Your task to perform on an android device: turn on translation in the chrome app Image 0: 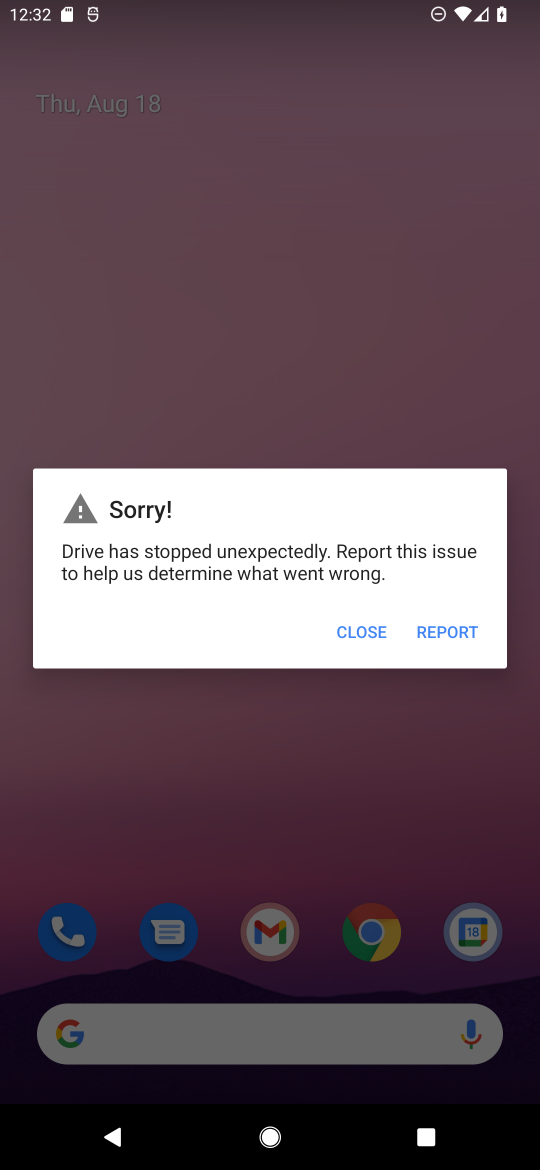
Step 0: press home button
Your task to perform on an android device: turn on translation in the chrome app Image 1: 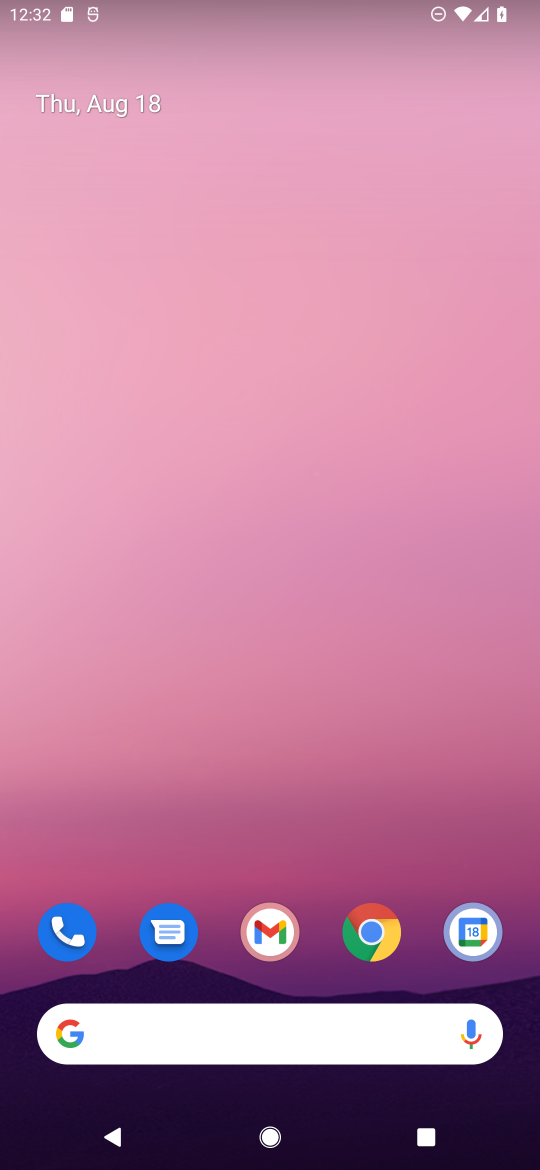
Step 1: click (369, 929)
Your task to perform on an android device: turn on translation in the chrome app Image 2: 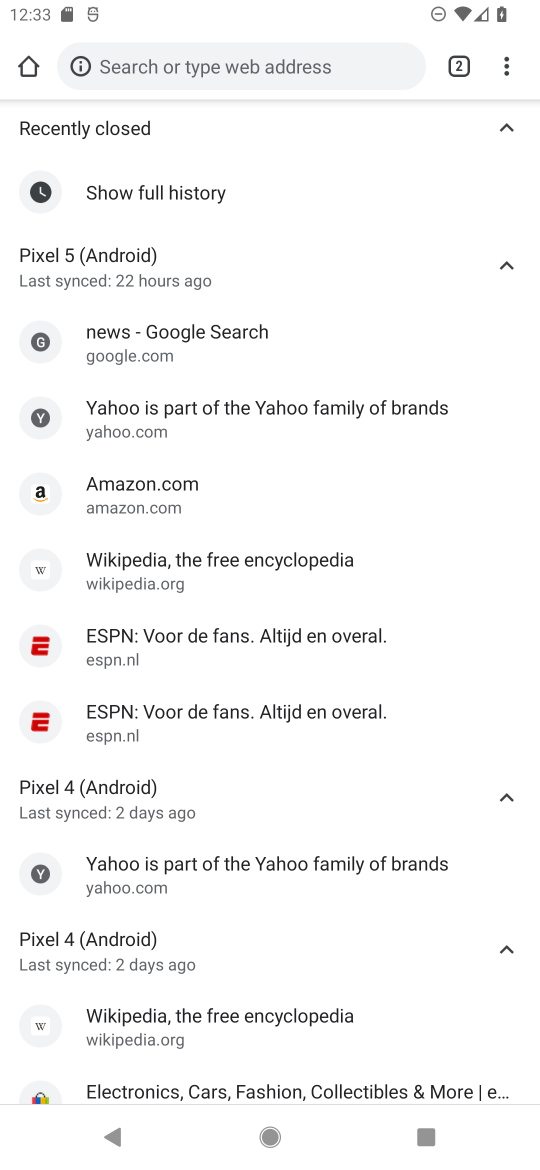
Step 2: click (505, 69)
Your task to perform on an android device: turn on translation in the chrome app Image 3: 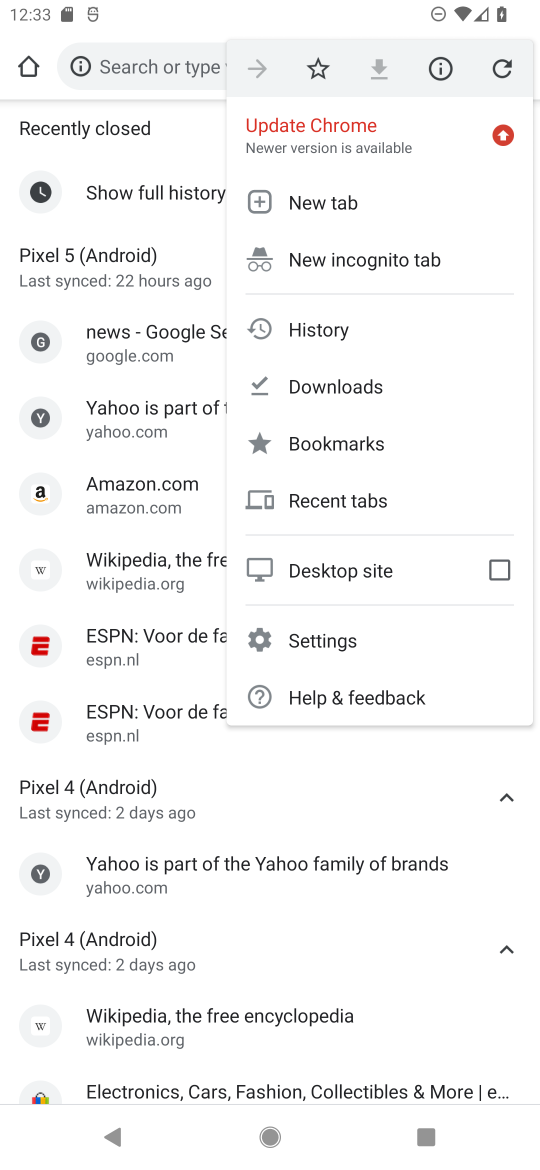
Step 3: click (321, 637)
Your task to perform on an android device: turn on translation in the chrome app Image 4: 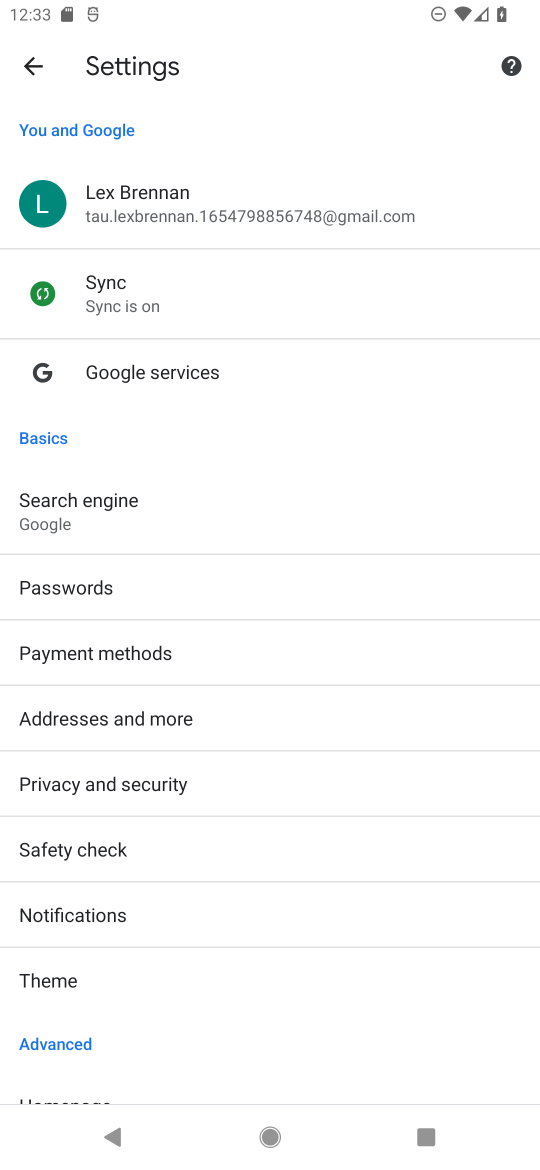
Step 4: drag from (273, 999) to (239, 549)
Your task to perform on an android device: turn on translation in the chrome app Image 5: 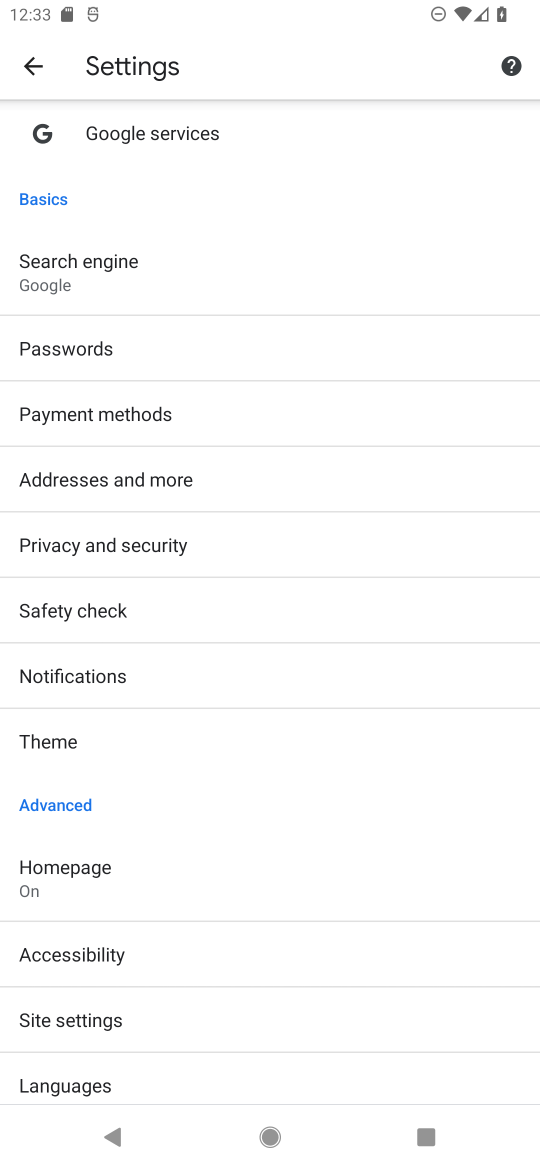
Step 5: click (82, 1078)
Your task to perform on an android device: turn on translation in the chrome app Image 6: 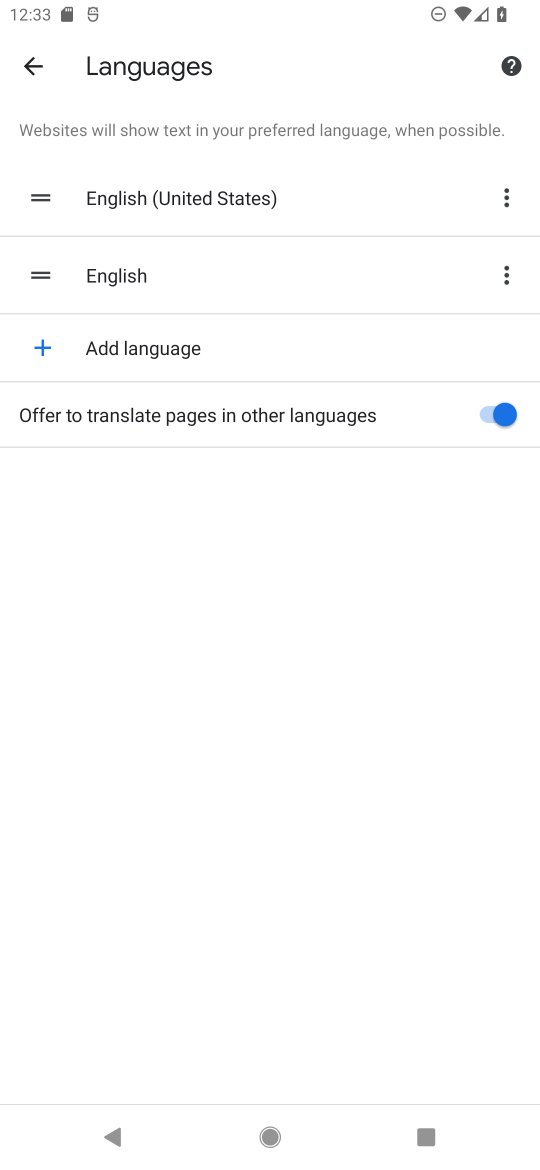
Step 6: task complete